Your task to perform on an android device: open app "Nova Launcher" (install if not already installed) and enter user name: "haggard@gmail.com" and password: "sadder" Image 0: 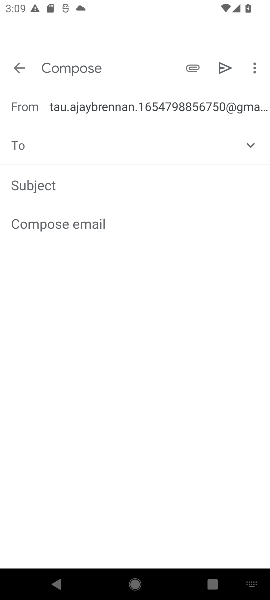
Step 0: press home button
Your task to perform on an android device: open app "Nova Launcher" (install if not already installed) and enter user name: "haggard@gmail.com" and password: "sadder" Image 1: 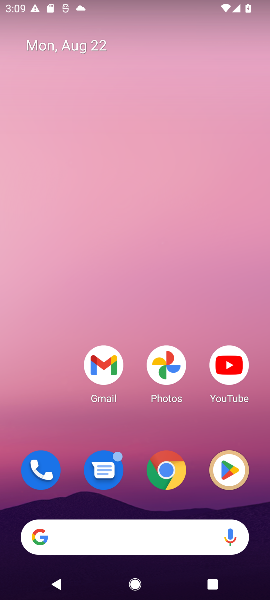
Step 1: drag from (99, 488) to (168, 56)
Your task to perform on an android device: open app "Nova Launcher" (install if not already installed) and enter user name: "haggard@gmail.com" and password: "sadder" Image 2: 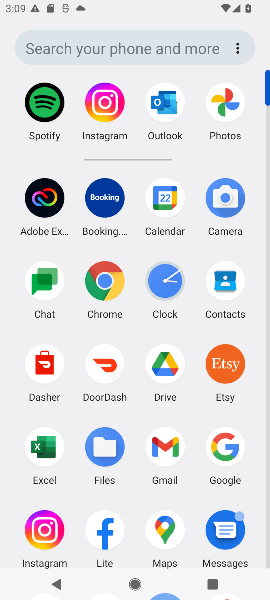
Step 2: drag from (116, 517) to (132, 193)
Your task to perform on an android device: open app "Nova Launcher" (install if not already installed) and enter user name: "haggard@gmail.com" and password: "sadder" Image 3: 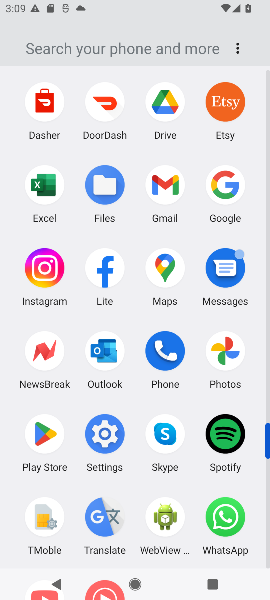
Step 3: drag from (122, 527) to (144, 135)
Your task to perform on an android device: open app "Nova Launcher" (install if not already installed) and enter user name: "haggard@gmail.com" and password: "sadder" Image 4: 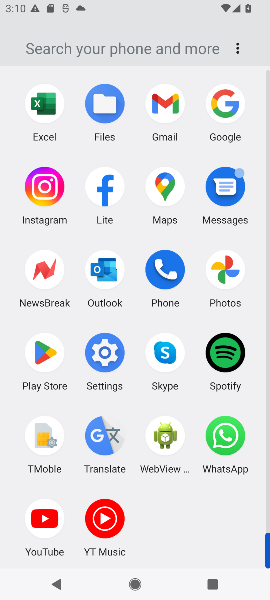
Step 4: drag from (137, 101) to (138, 465)
Your task to perform on an android device: open app "Nova Launcher" (install if not already installed) and enter user name: "haggard@gmail.com" and password: "sadder" Image 5: 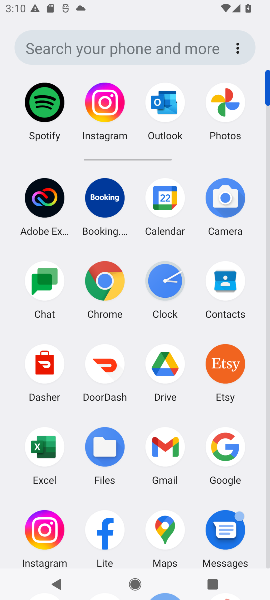
Step 5: drag from (128, 209) to (132, 543)
Your task to perform on an android device: open app "Nova Launcher" (install if not already installed) and enter user name: "haggard@gmail.com" and password: "sadder" Image 6: 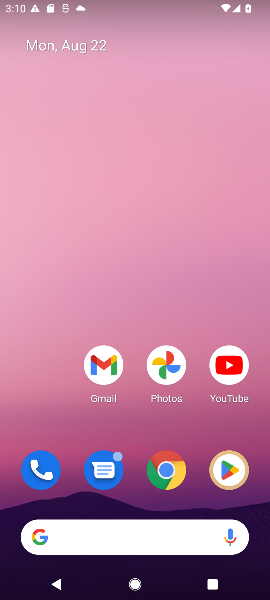
Step 6: click (231, 465)
Your task to perform on an android device: open app "Nova Launcher" (install if not already installed) and enter user name: "haggard@gmail.com" and password: "sadder" Image 7: 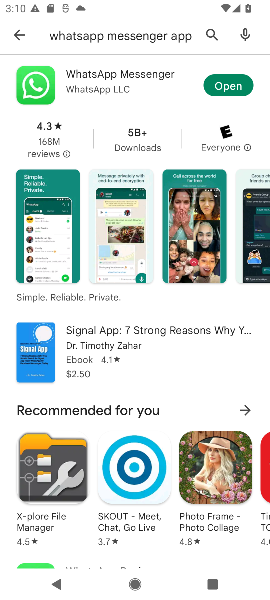
Step 7: click (23, 25)
Your task to perform on an android device: open app "Nova Launcher" (install if not already installed) and enter user name: "haggard@gmail.com" and password: "sadder" Image 8: 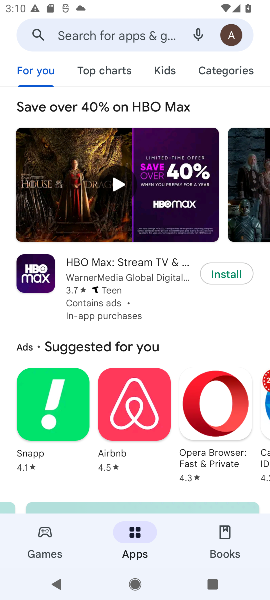
Step 8: click (147, 31)
Your task to perform on an android device: open app "Nova Launcher" (install if not already installed) and enter user name: "haggard@gmail.com" and password: "sadder" Image 9: 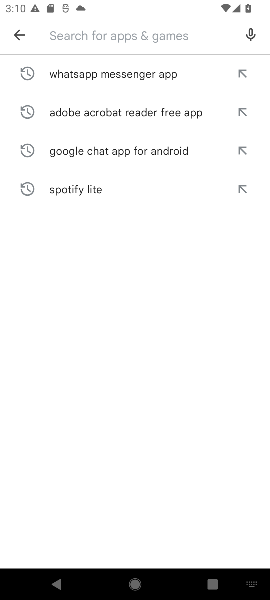
Step 9: type "Nova Launcher "
Your task to perform on an android device: open app "Nova Launcher" (install if not already installed) and enter user name: "haggard@gmail.com" and password: "sadder" Image 10: 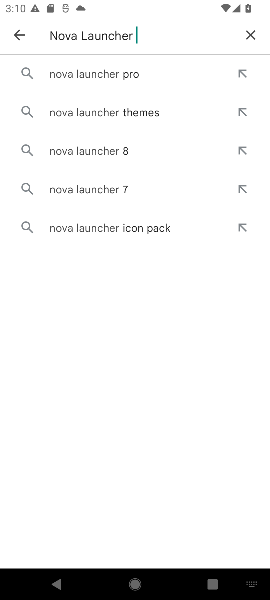
Step 10: click (128, 72)
Your task to perform on an android device: open app "Nova Launcher" (install if not already installed) and enter user name: "haggard@gmail.com" and password: "sadder" Image 11: 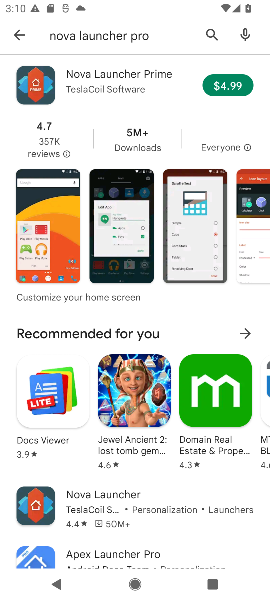
Step 11: task complete